Your task to perform on an android device: Open ESPN.com Image 0: 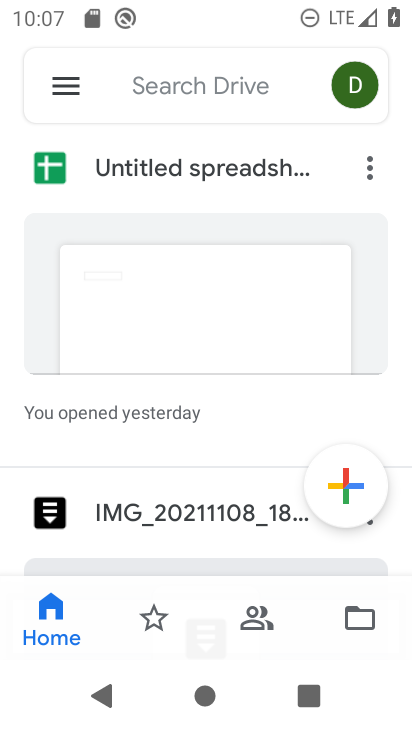
Step 0: press home button
Your task to perform on an android device: Open ESPN.com Image 1: 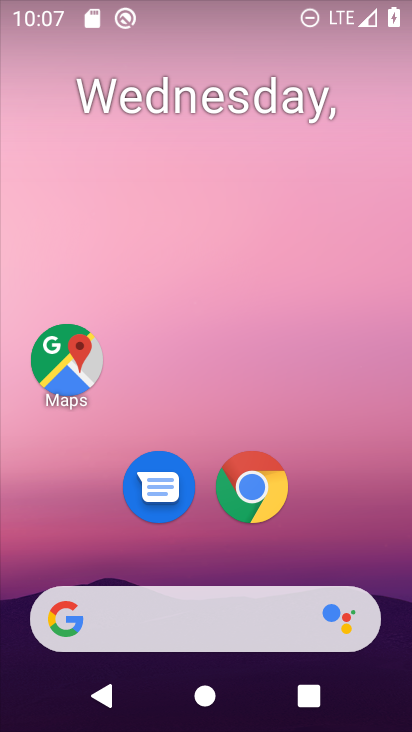
Step 1: click (255, 488)
Your task to perform on an android device: Open ESPN.com Image 2: 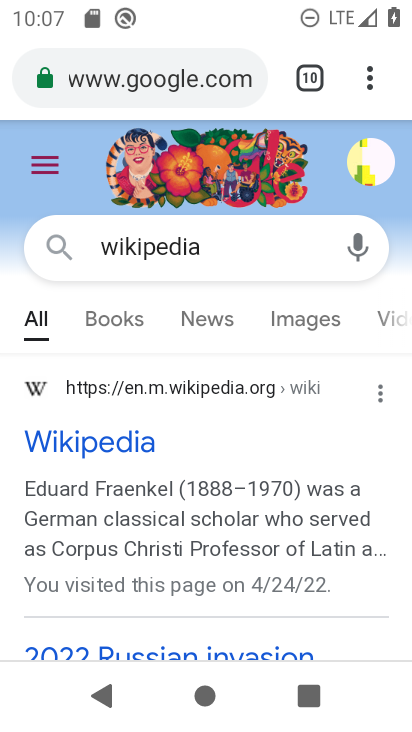
Step 2: click (370, 79)
Your task to perform on an android device: Open ESPN.com Image 3: 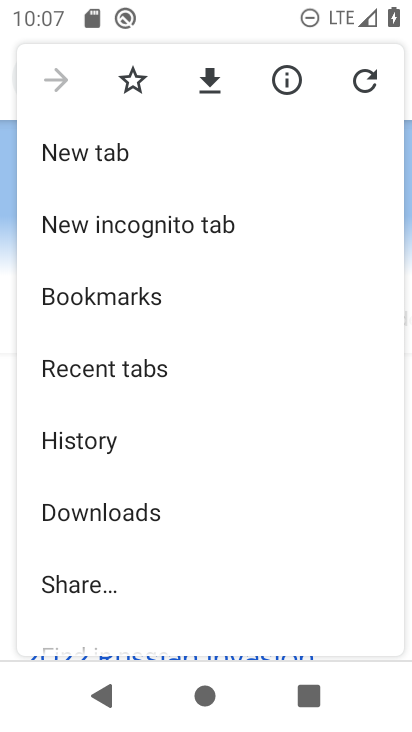
Step 3: click (98, 147)
Your task to perform on an android device: Open ESPN.com Image 4: 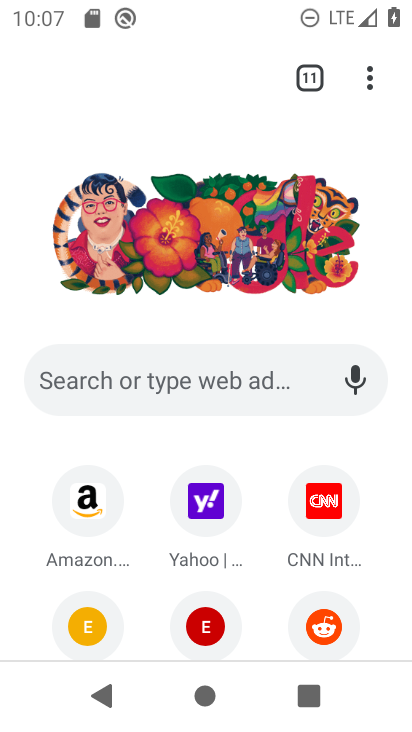
Step 4: click (160, 373)
Your task to perform on an android device: Open ESPN.com Image 5: 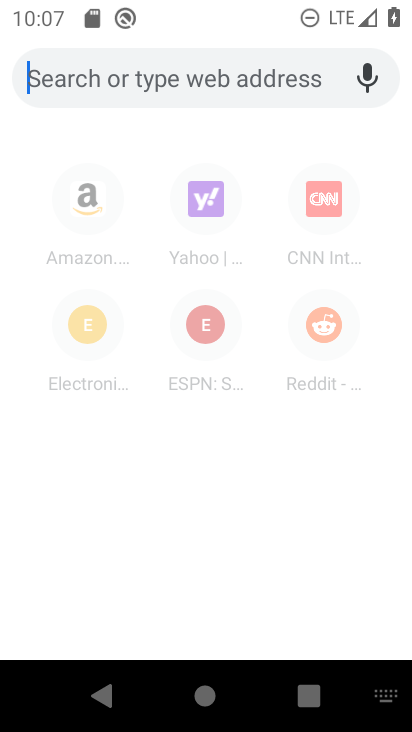
Step 5: type "espn.com"
Your task to perform on an android device: Open ESPN.com Image 6: 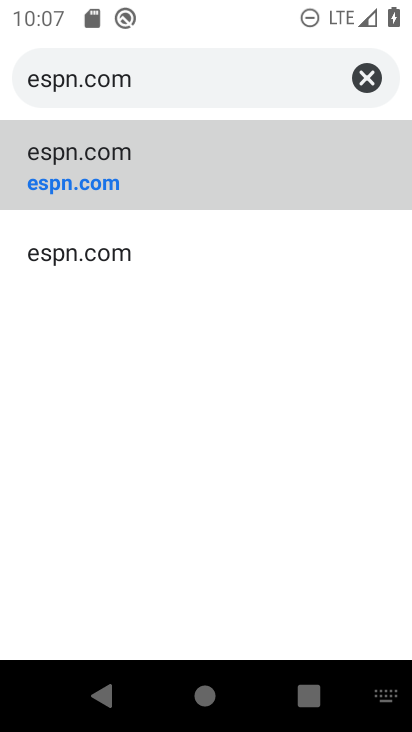
Step 6: click (81, 142)
Your task to perform on an android device: Open ESPN.com Image 7: 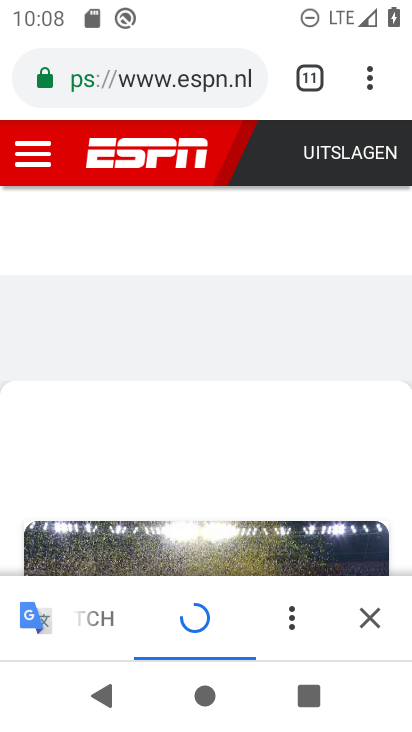
Step 7: task complete